Your task to perform on an android device: choose inbox layout in the gmail app Image 0: 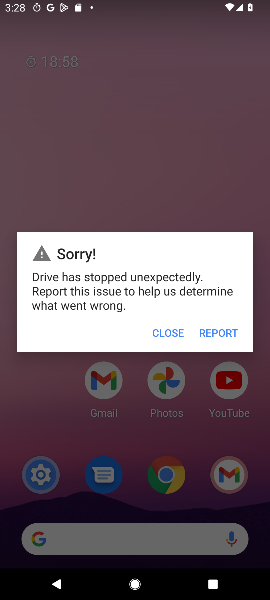
Step 0: press home button
Your task to perform on an android device: choose inbox layout in the gmail app Image 1: 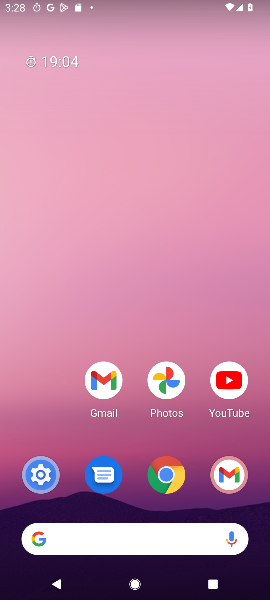
Step 1: drag from (62, 434) to (64, 165)
Your task to perform on an android device: choose inbox layout in the gmail app Image 2: 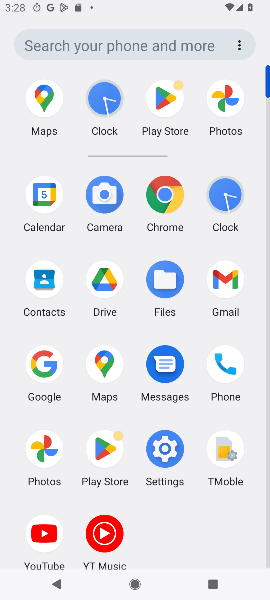
Step 2: click (224, 277)
Your task to perform on an android device: choose inbox layout in the gmail app Image 3: 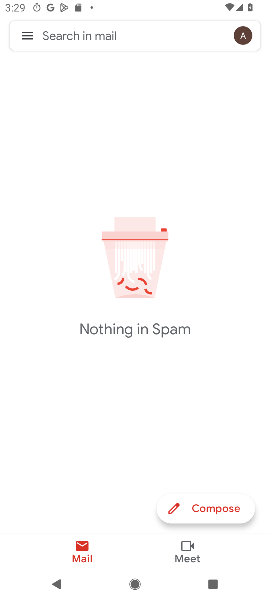
Step 3: click (29, 33)
Your task to perform on an android device: choose inbox layout in the gmail app Image 4: 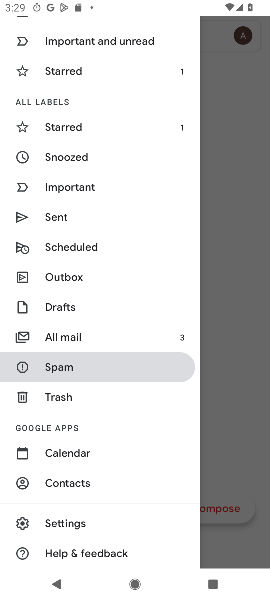
Step 4: click (86, 523)
Your task to perform on an android device: choose inbox layout in the gmail app Image 5: 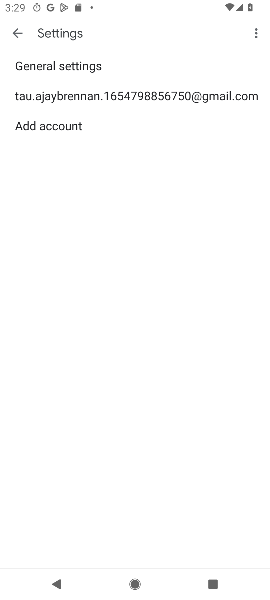
Step 5: click (109, 97)
Your task to perform on an android device: choose inbox layout in the gmail app Image 6: 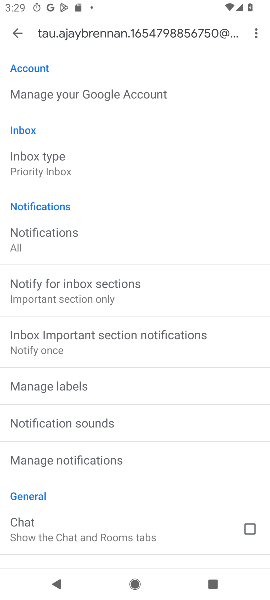
Step 6: click (77, 172)
Your task to perform on an android device: choose inbox layout in the gmail app Image 7: 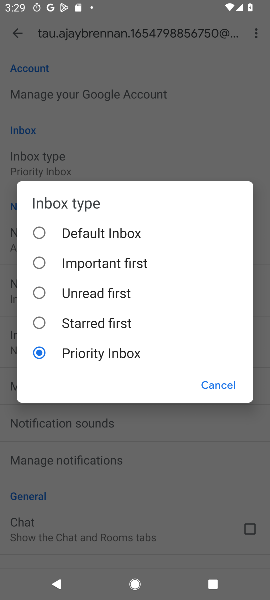
Step 7: click (95, 292)
Your task to perform on an android device: choose inbox layout in the gmail app Image 8: 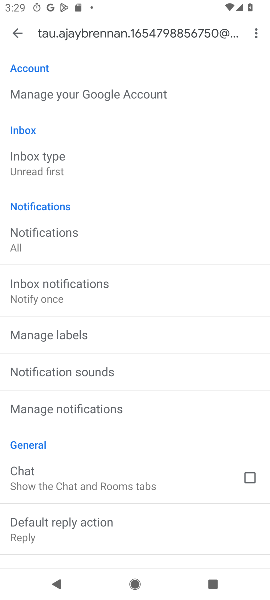
Step 8: task complete